Your task to perform on an android device: move a message to another label in the gmail app Image 0: 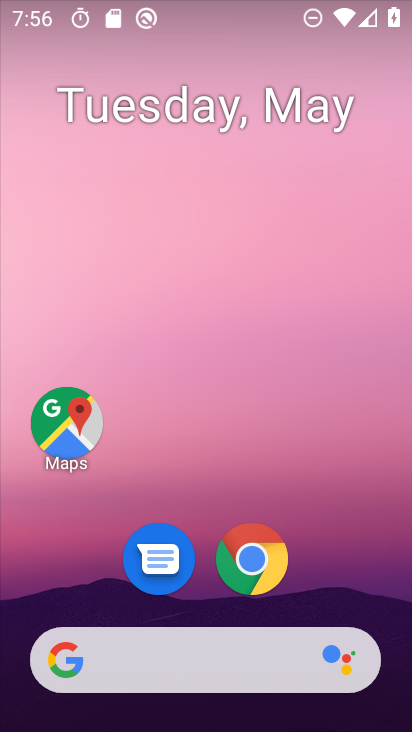
Step 0: drag from (397, 648) to (316, 1)
Your task to perform on an android device: move a message to another label in the gmail app Image 1: 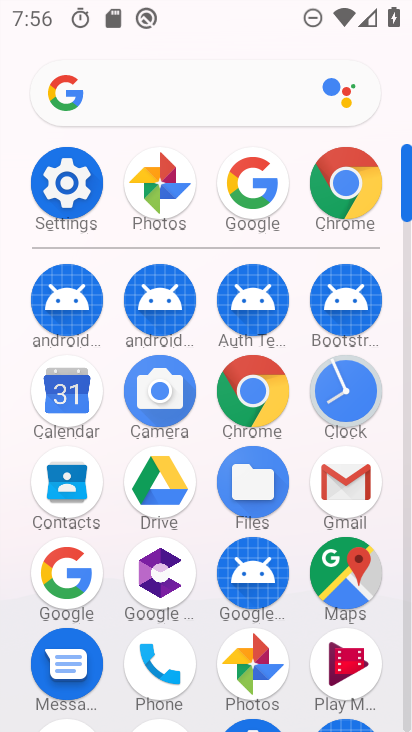
Step 1: click (349, 497)
Your task to perform on an android device: move a message to another label in the gmail app Image 2: 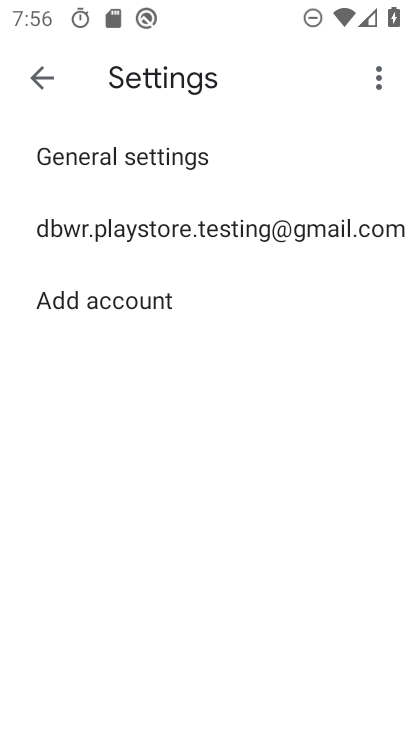
Step 2: task complete